Your task to perform on an android device: Search for Italian restaurants on Maps Image 0: 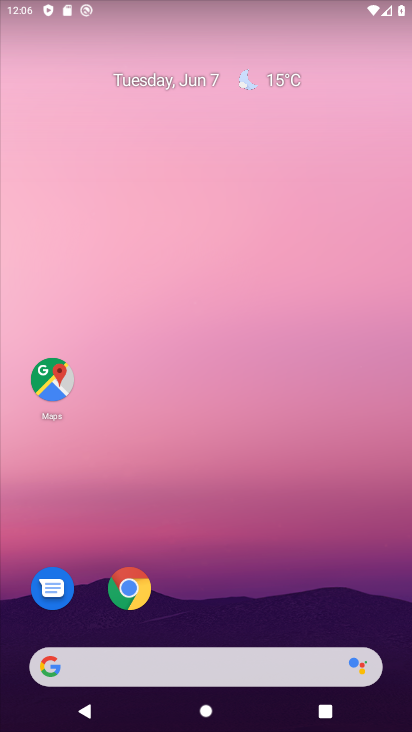
Step 0: click (50, 374)
Your task to perform on an android device: Search for Italian restaurants on Maps Image 1: 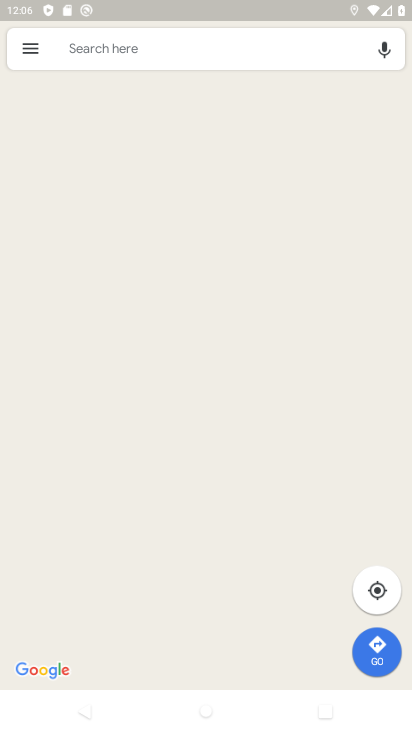
Step 1: click (171, 43)
Your task to perform on an android device: Search for Italian restaurants on Maps Image 2: 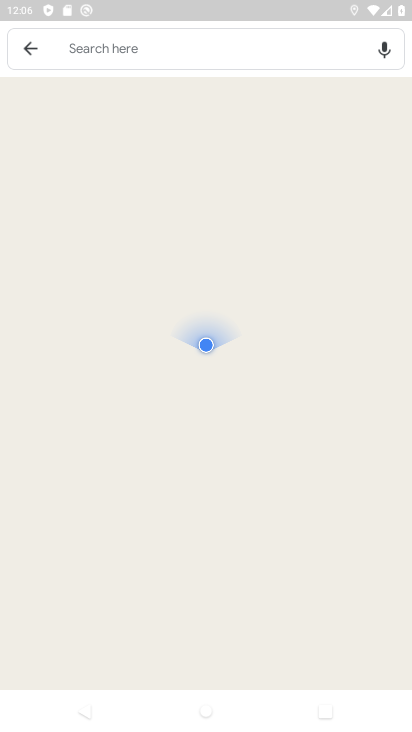
Step 2: click (149, 37)
Your task to perform on an android device: Search for Italian restaurants on Maps Image 3: 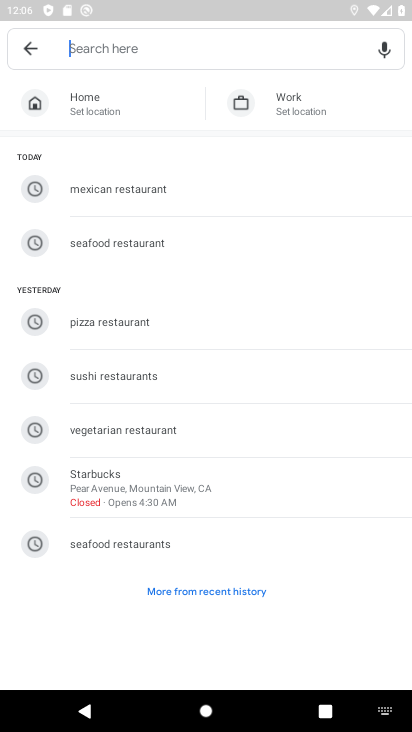
Step 3: click (198, 44)
Your task to perform on an android device: Search for Italian restaurants on Maps Image 4: 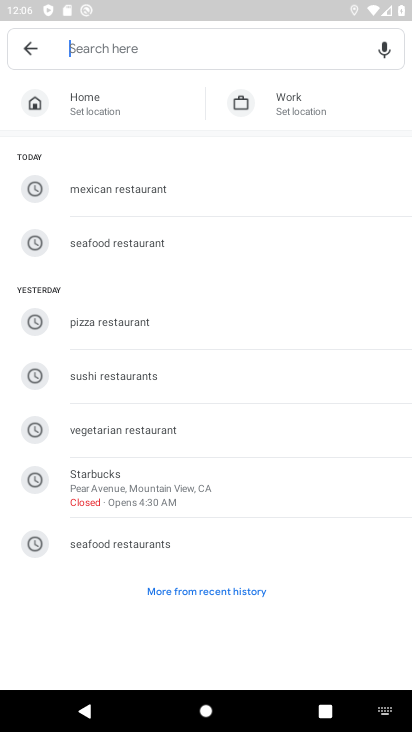
Step 4: type " Italian restaurants "
Your task to perform on an android device: Search for Italian restaurants on Maps Image 5: 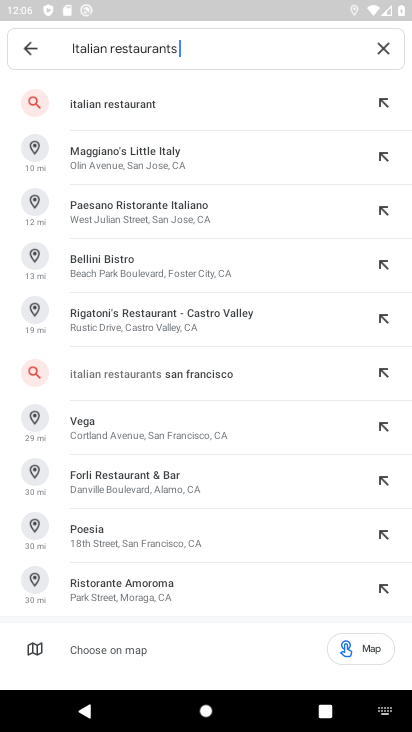
Step 5: click (163, 104)
Your task to perform on an android device: Search for Italian restaurants on Maps Image 6: 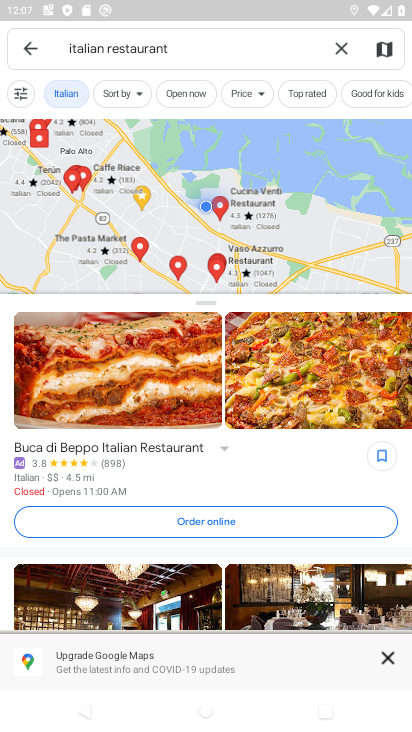
Step 6: task complete